Your task to perform on an android device: Open the stopwatch Image 0: 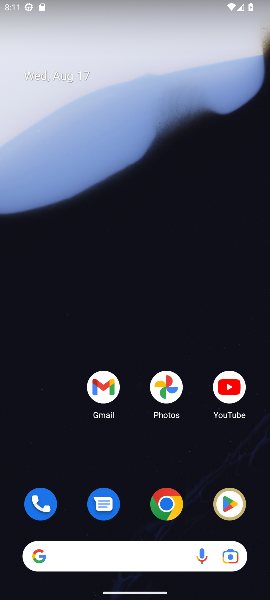
Step 0: drag from (136, 341) to (180, 19)
Your task to perform on an android device: Open the stopwatch Image 1: 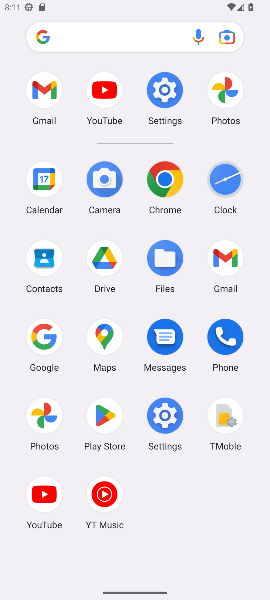
Step 1: click (220, 180)
Your task to perform on an android device: Open the stopwatch Image 2: 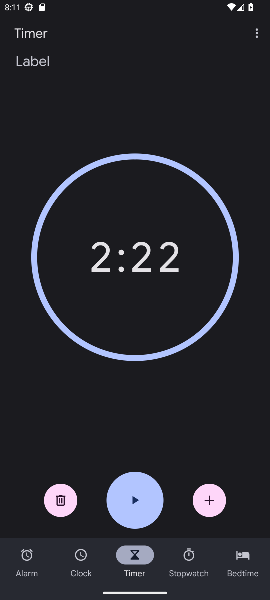
Step 2: click (186, 566)
Your task to perform on an android device: Open the stopwatch Image 3: 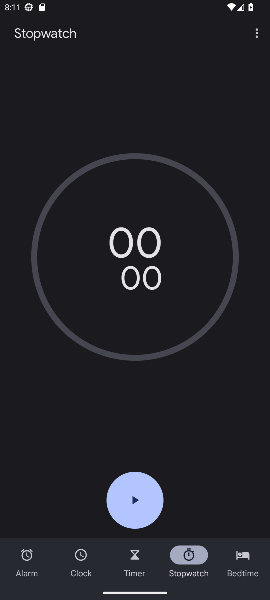
Step 3: task complete